Your task to perform on an android device: Open the calendar and show me this week's events? Image 0: 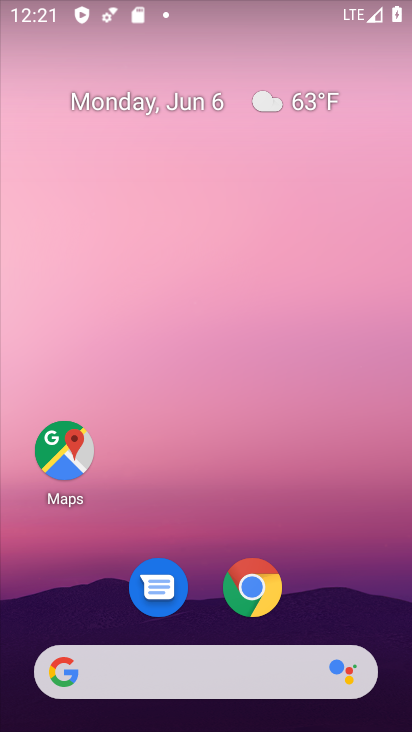
Step 0: drag from (367, 604) to (316, 87)
Your task to perform on an android device: Open the calendar and show me this week's events? Image 1: 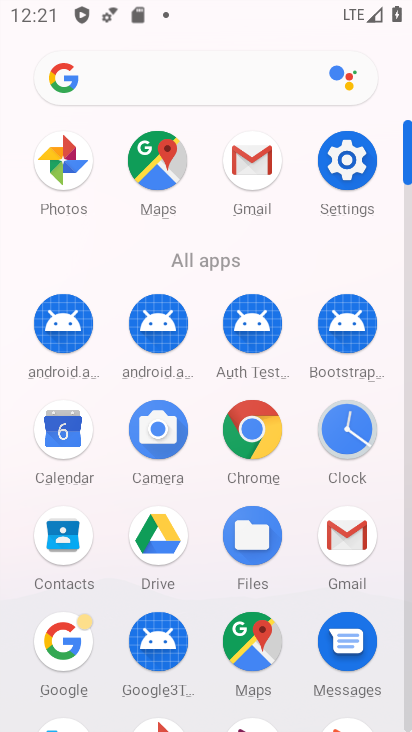
Step 1: click (63, 429)
Your task to perform on an android device: Open the calendar and show me this week's events? Image 2: 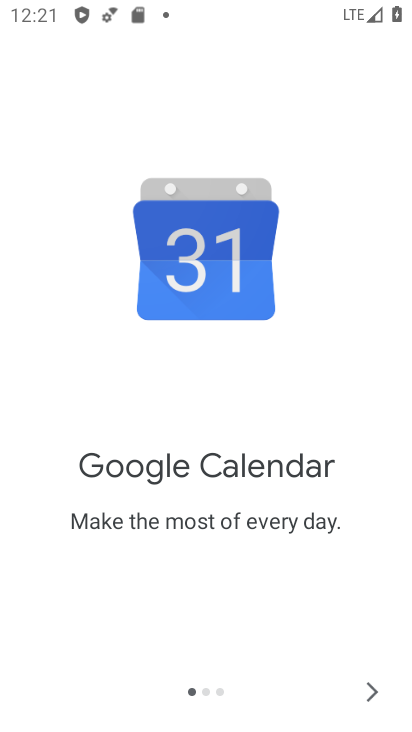
Step 2: click (370, 693)
Your task to perform on an android device: Open the calendar and show me this week's events? Image 3: 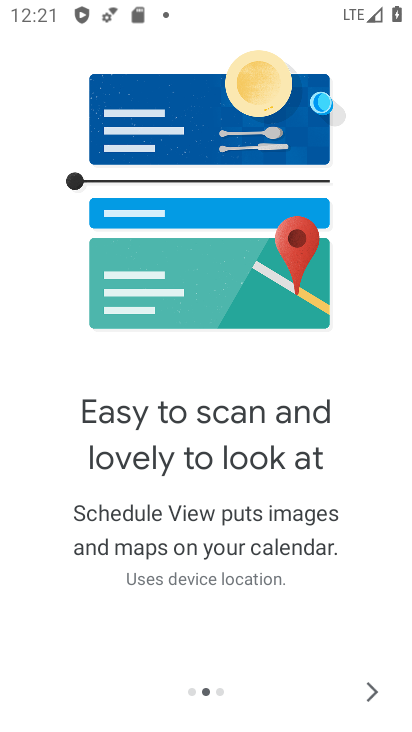
Step 3: click (370, 693)
Your task to perform on an android device: Open the calendar and show me this week's events? Image 4: 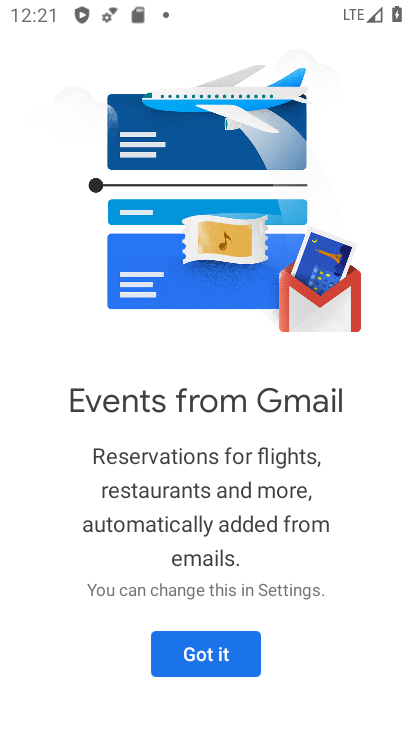
Step 4: click (234, 652)
Your task to perform on an android device: Open the calendar and show me this week's events? Image 5: 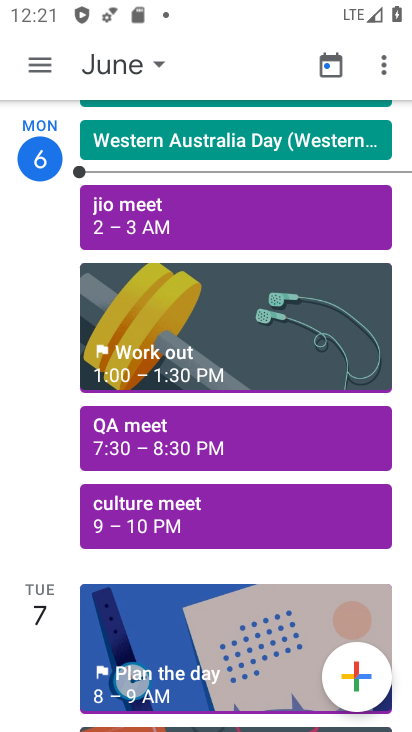
Step 5: click (46, 64)
Your task to perform on an android device: Open the calendar and show me this week's events? Image 6: 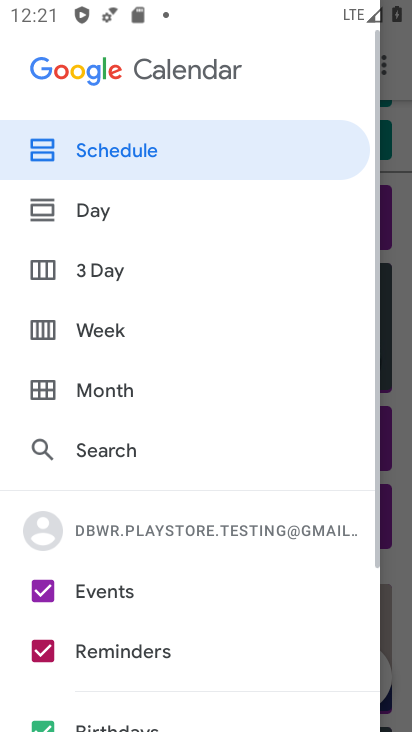
Step 6: drag from (156, 668) to (133, 346)
Your task to perform on an android device: Open the calendar and show me this week's events? Image 7: 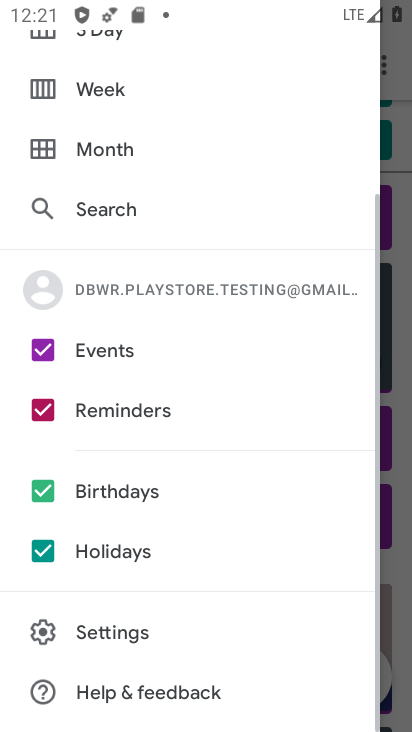
Step 7: click (41, 556)
Your task to perform on an android device: Open the calendar and show me this week's events? Image 8: 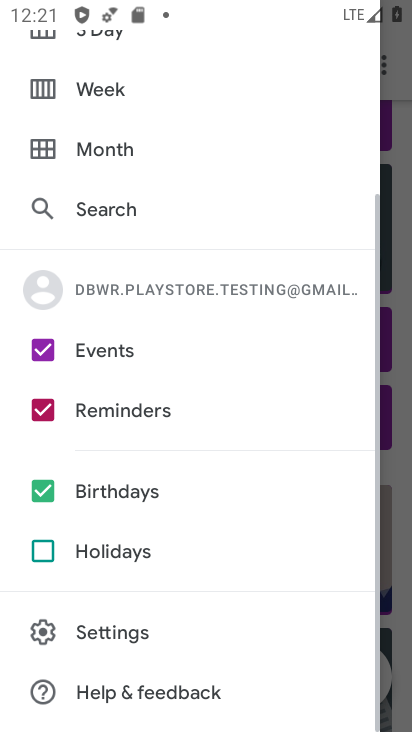
Step 8: click (46, 485)
Your task to perform on an android device: Open the calendar and show me this week's events? Image 9: 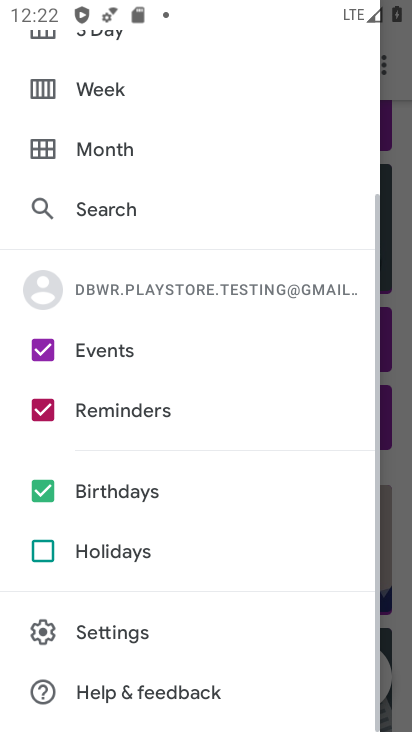
Step 9: click (42, 407)
Your task to perform on an android device: Open the calendar and show me this week's events? Image 10: 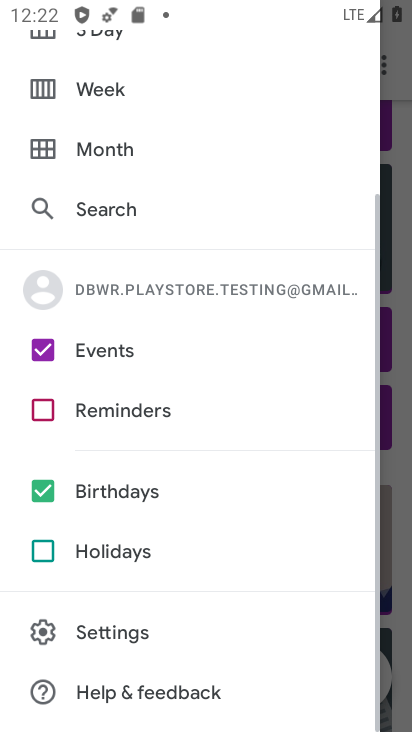
Step 10: click (44, 494)
Your task to perform on an android device: Open the calendar and show me this week's events? Image 11: 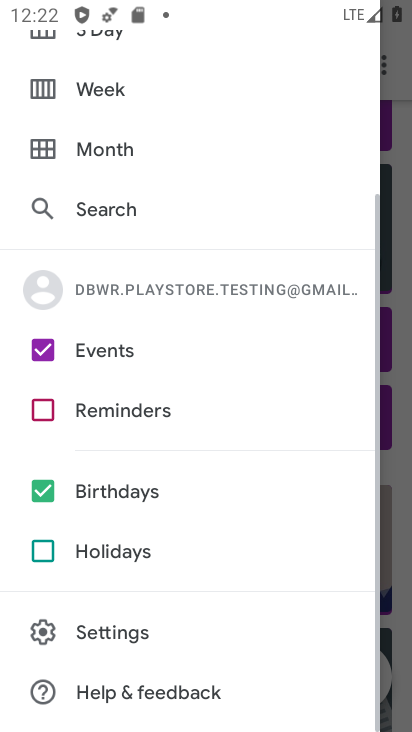
Step 11: click (41, 491)
Your task to perform on an android device: Open the calendar and show me this week's events? Image 12: 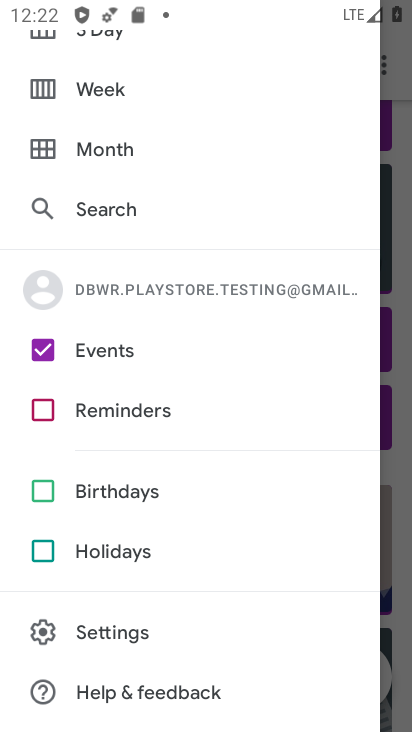
Step 12: click (111, 92)
Your task to perform on an android device: Open the calendar and show me this week's events? Image 13: 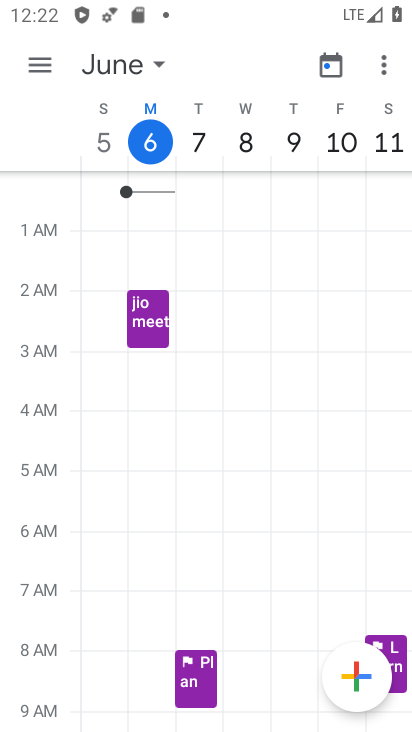
Step 13: task complete